Your task to perform on an android device: change the upload size in google photos Image 0: 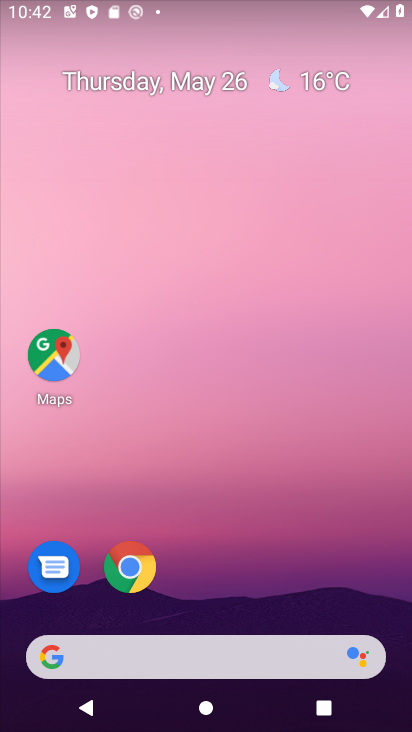
Step 0: drag from (230, 445) to (243, 15)
Your task to perform on an android device: change the upload size in google photos Image 1: 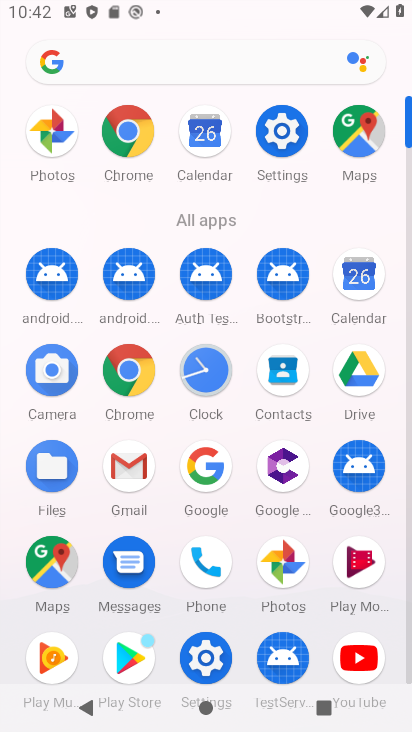
Step 1: click (52, 125)
Your task to perform on an android device: change the upload size in google photos Image 2: 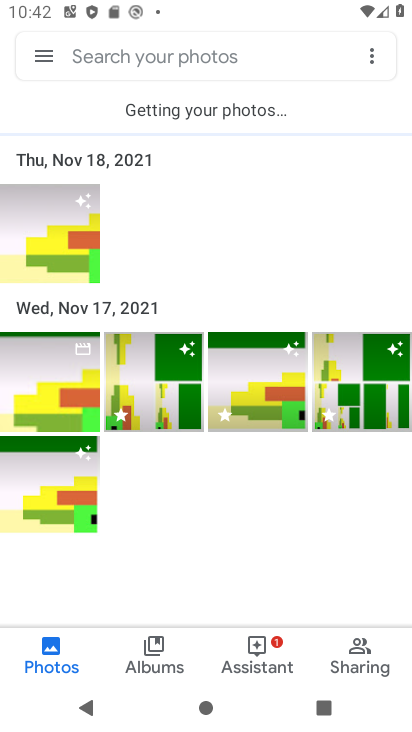
Step 2: click (40, 53)
Your task to perform on an android device: change the upload size in google photos Image 3: 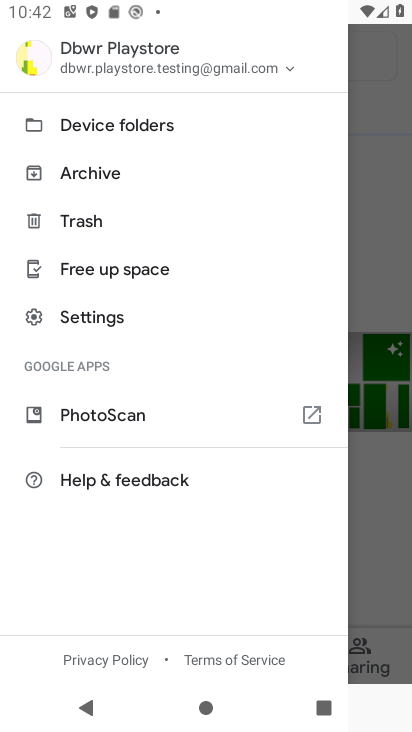
Step 3: click (129, 312)
Your task to perform on an android device: change the upload size in google photos Image 4: 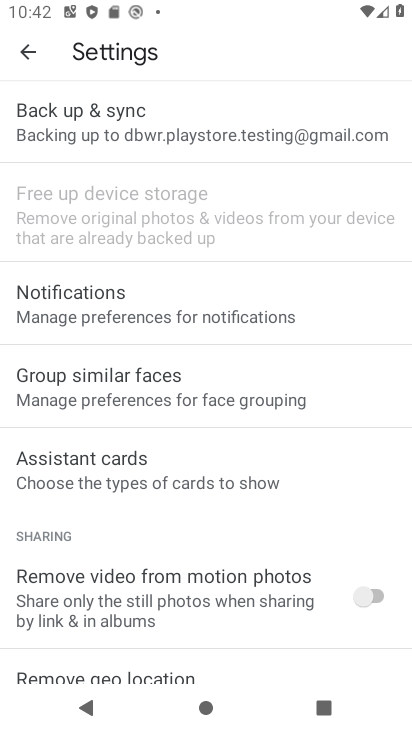
Step 4: click (163, 115)
Your task to perform on an android device: change the upload size in google photos Image 5: 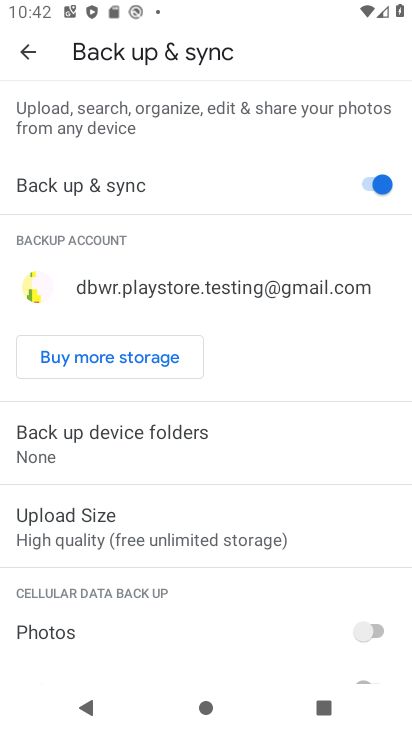
Step 5: click (160, 503)
Your task to perform on an android device: change the upload size in google photos Image 6: 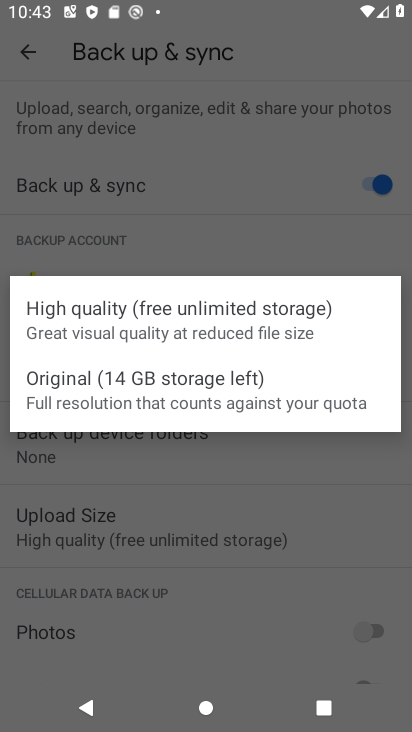
Step 6: click (124, 393)
Your task to perform on an android device: change the upload size in google photos Image 7: 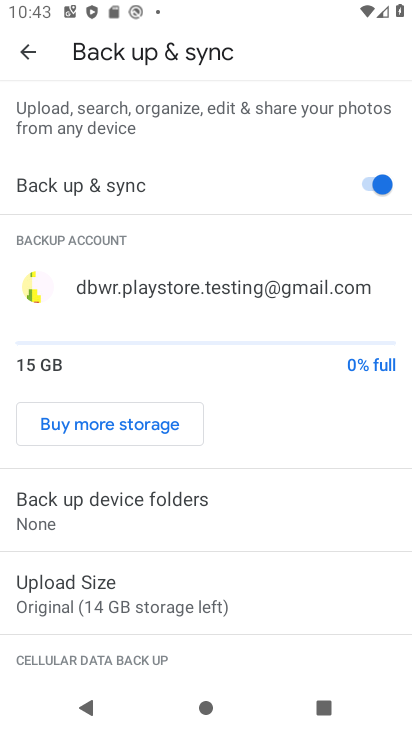
Step 7: task complete